Your task to perform on an android device: Empty the shopping cart on target. Image 0: 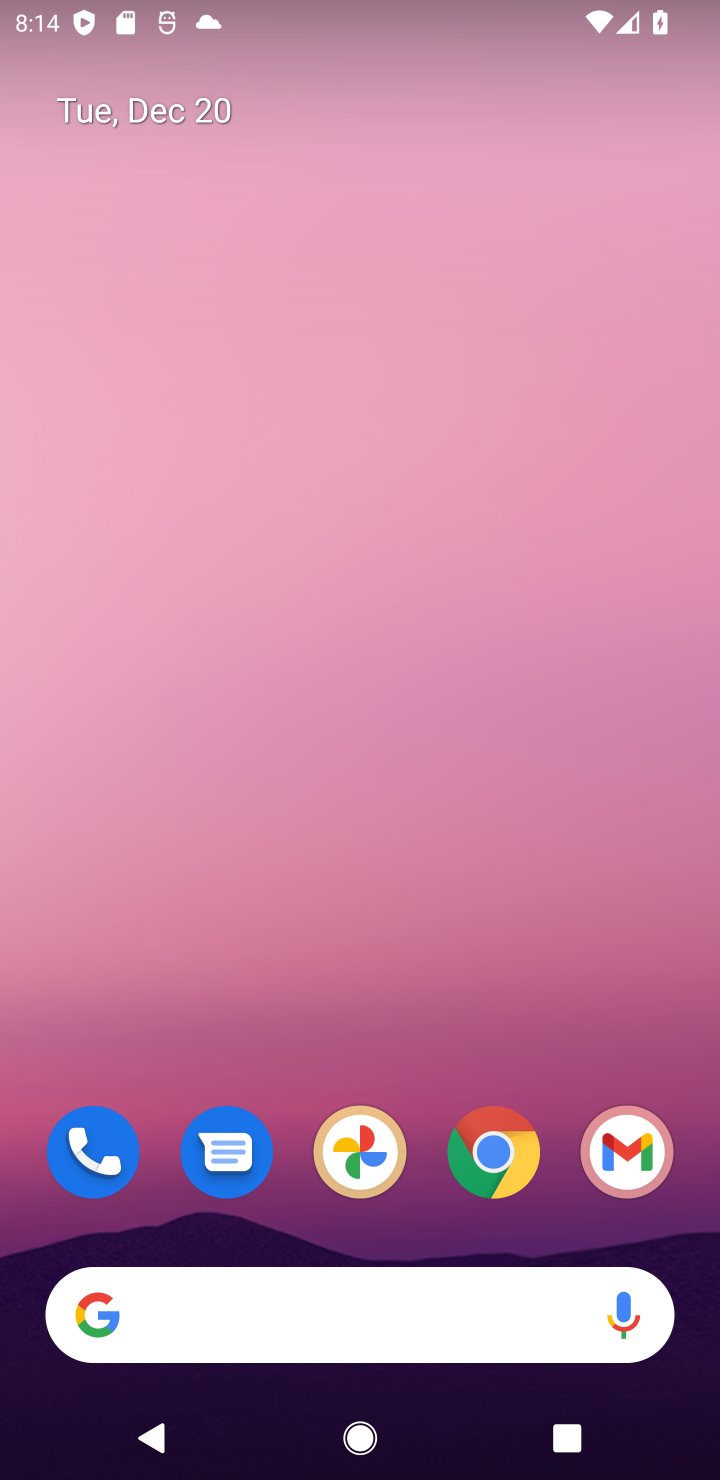
Step 0: click (510, 1147)
Your task to perform on an android device: Empty the shopping cart on target. Image 1: 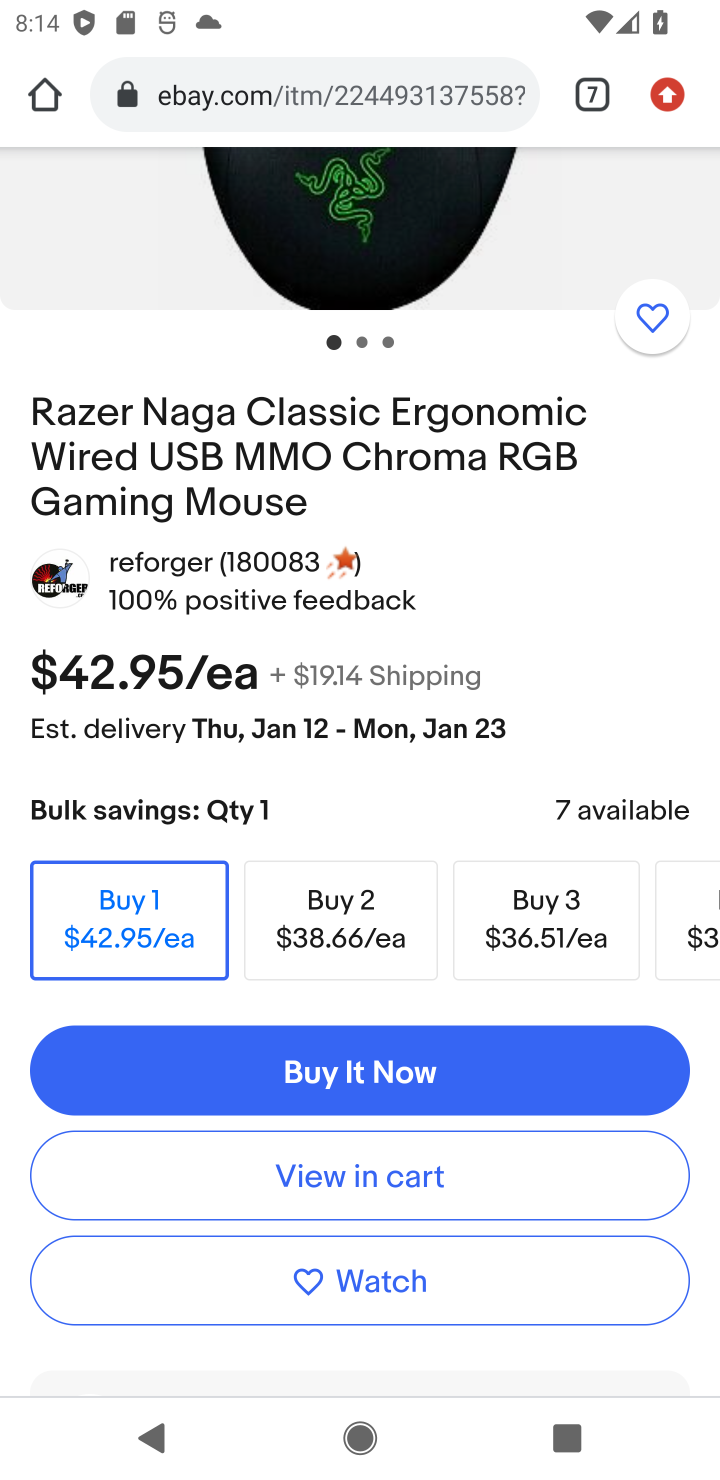
Step 1: click (611, 92)
Your task to perform on an android device: Empty the shopping cart on target. Image 2: 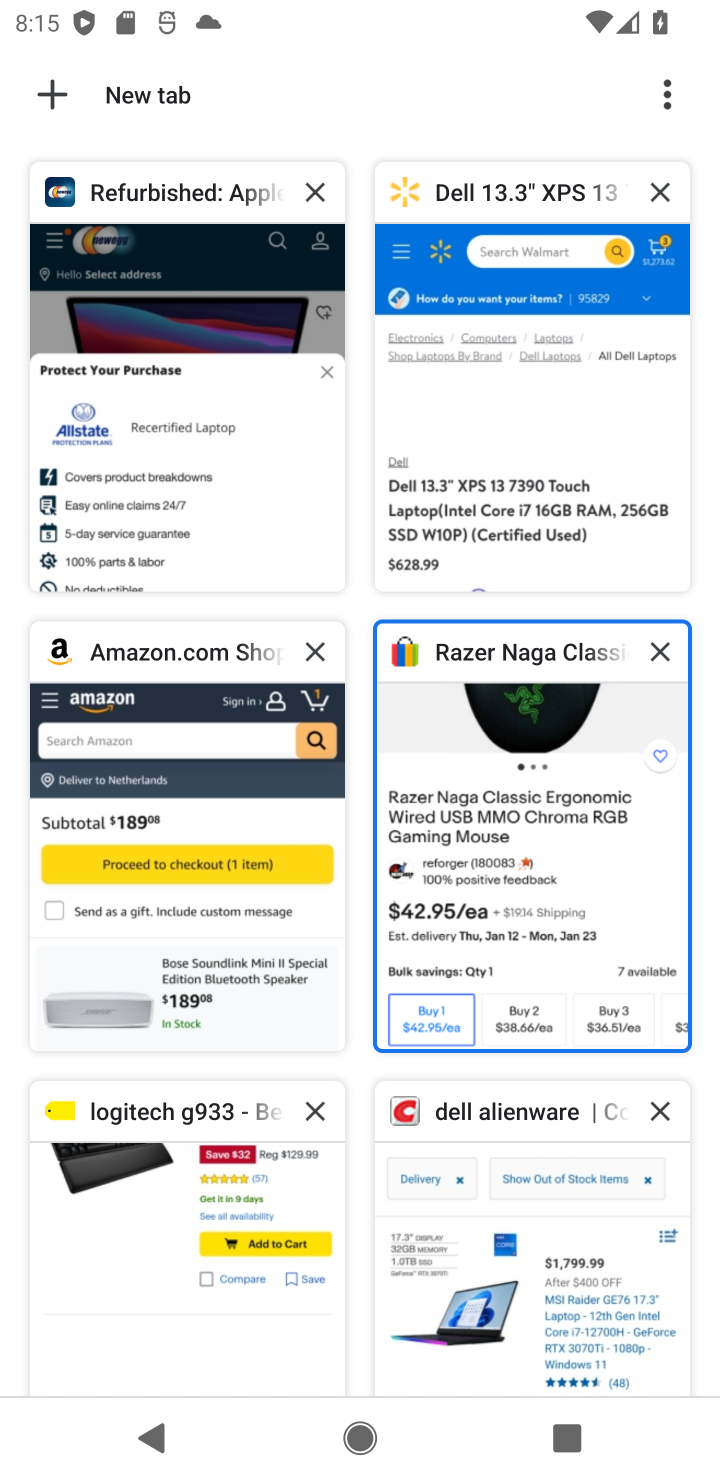
Step 2: drag from (476, 1185) to (627, 360)
Your task to perform on an android device: Empty the shopping cart on target. Image 3: 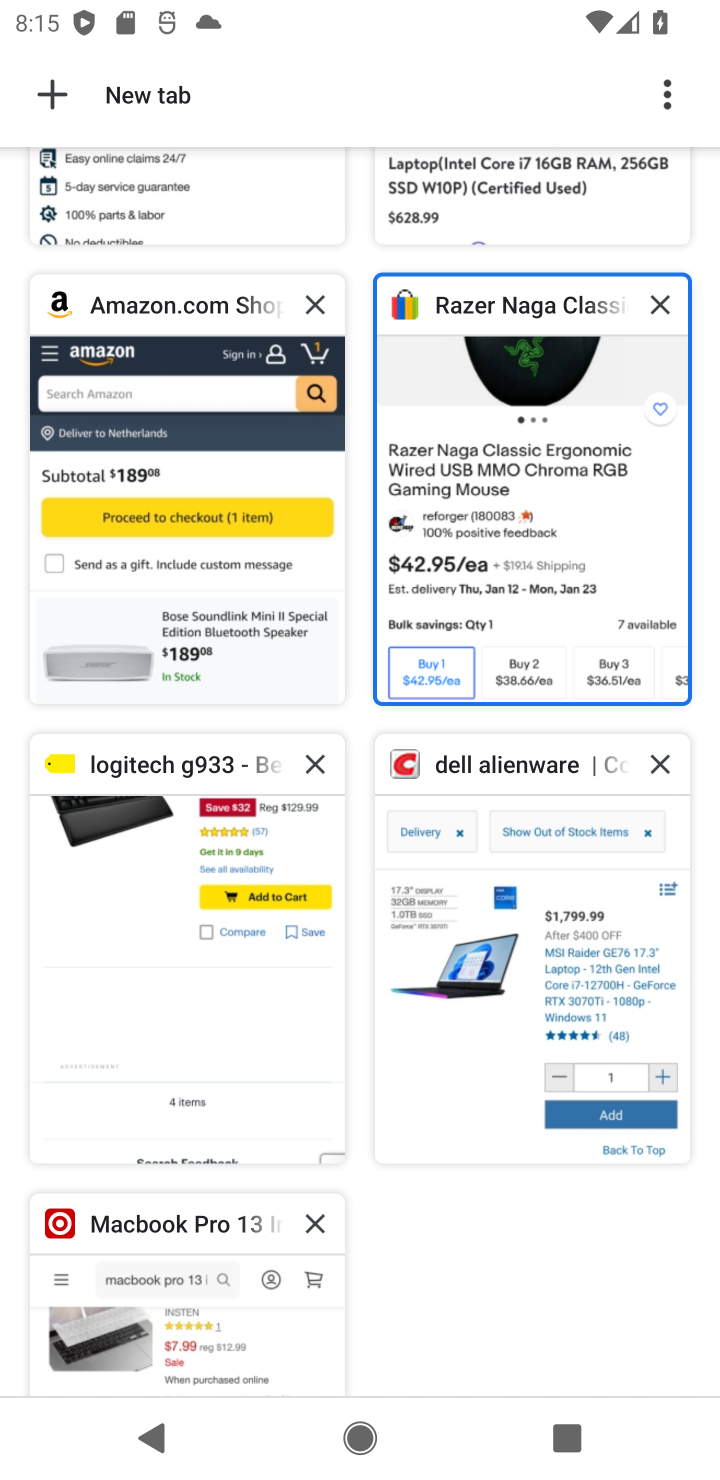
Step 3: click (224, 1308)
Your task to perform on an android device: Empty the shopping cart on target. Image 4: 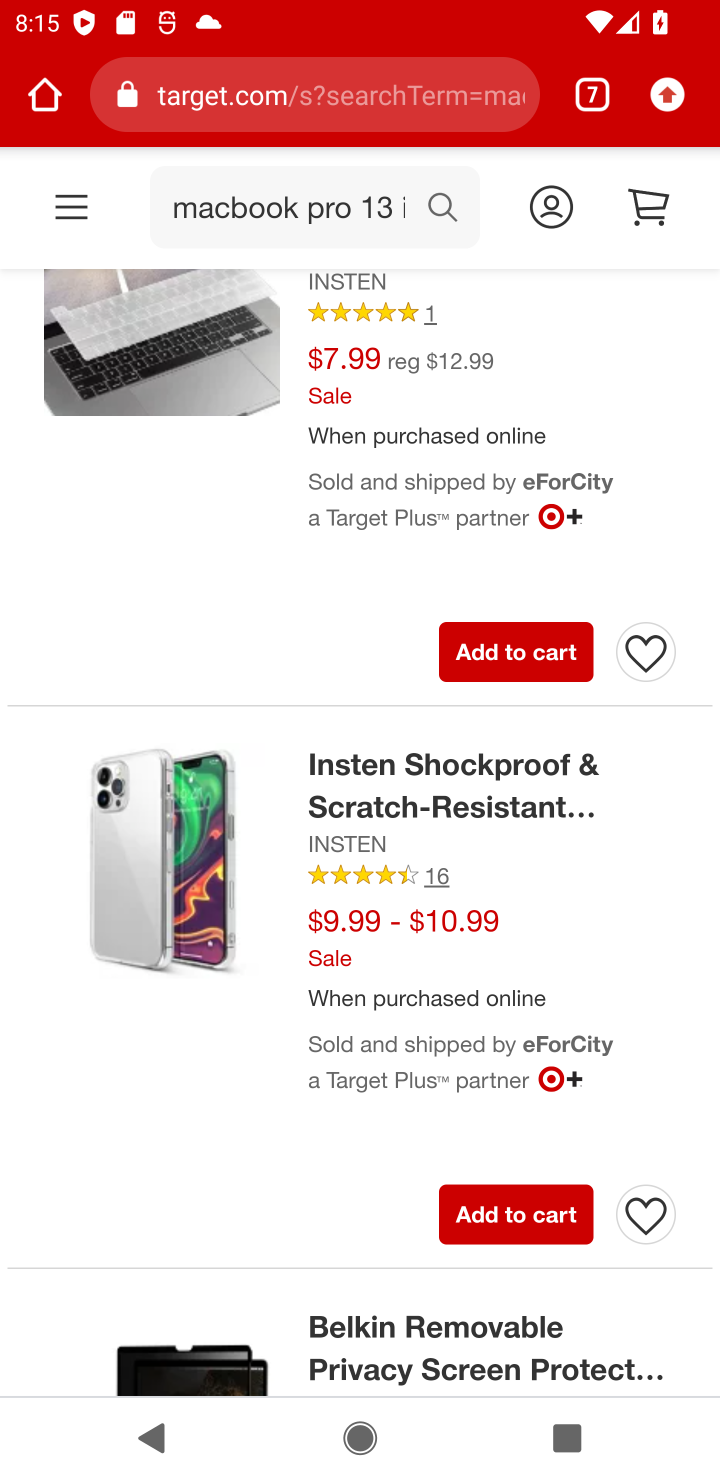
Step 4: click (647, 204)
Your task to perform on an android device: Empty the shopping cart on target. Image 5: 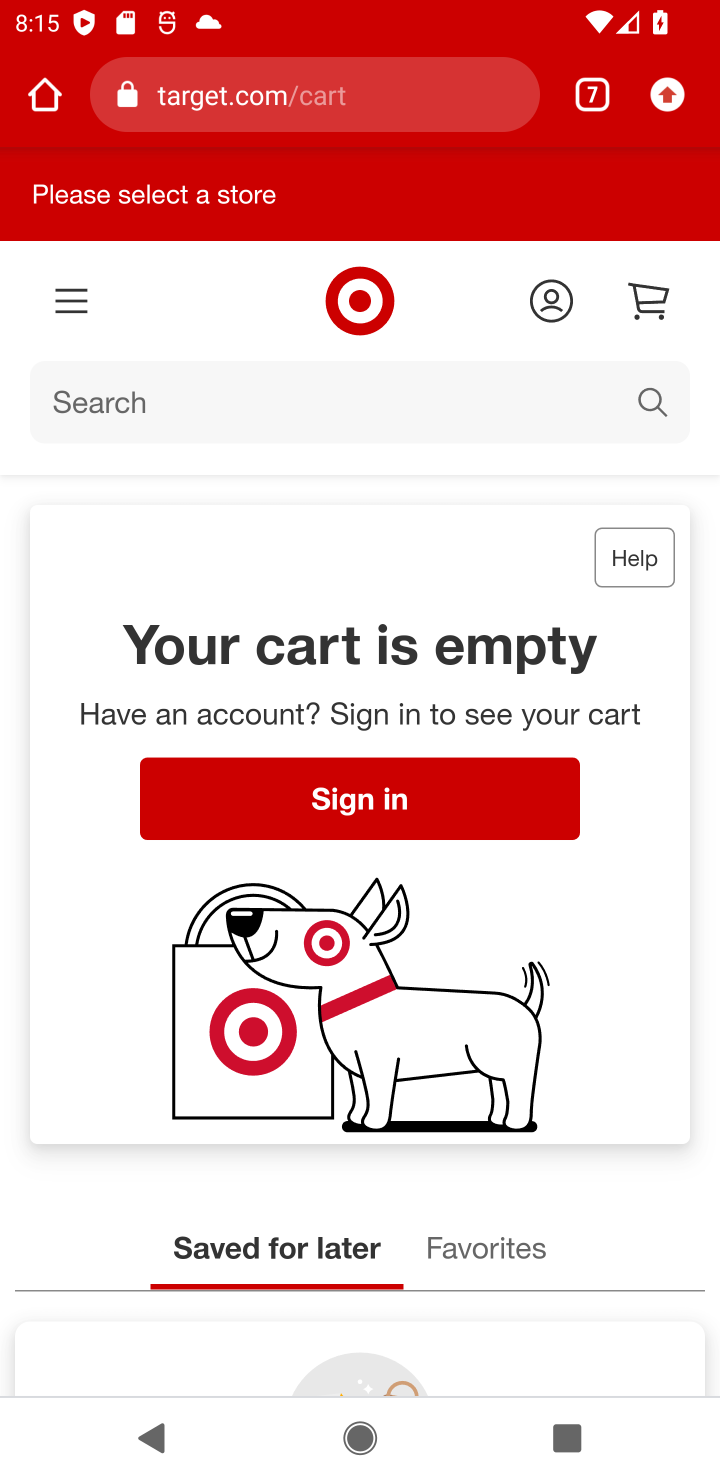
Step 5: task complete